Your task to perform on an android device: Do I have any events today? Image 0: 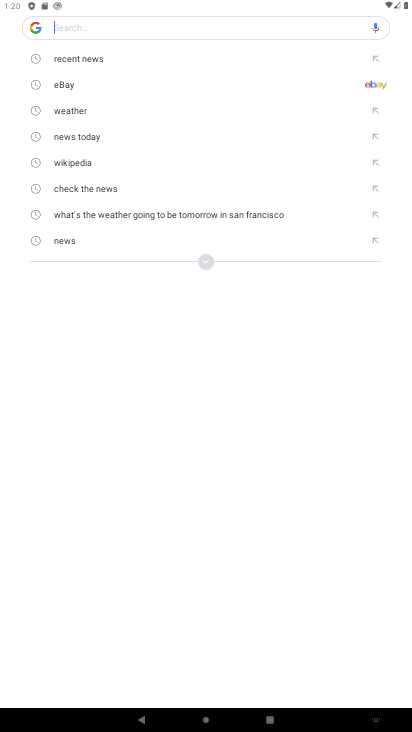
Step 0: press home button
Your task to perform on an android device: Do I have any events today? Image 1: 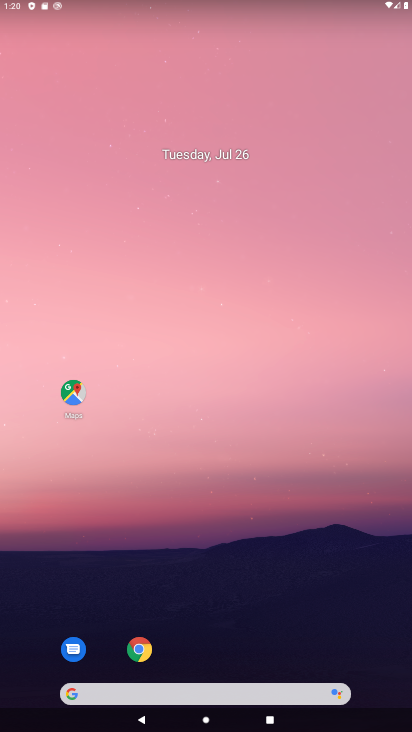
Step 1: drag from (227, 643) to (211, 4)
Your task to perform on an android device: Do I have any events today? Image 2: 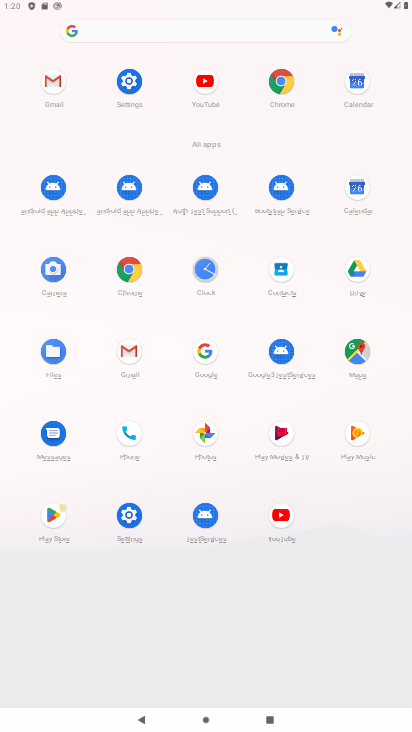
Step 2: click (354, 203)
Your task to perform on an android device: Do I have any events today? Image 3: 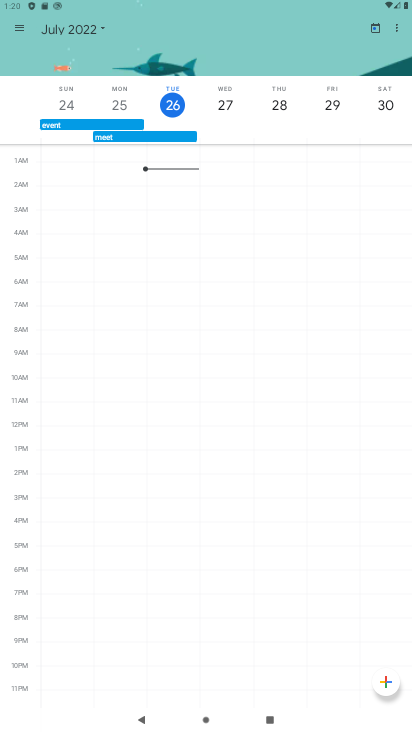
Step 3: task complete